Your task to perform on an android device: turn on translation in the chrome app Image 0: 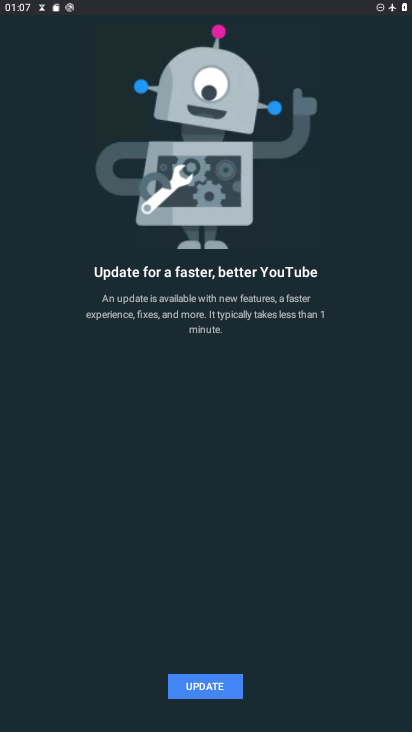
Step 0: press home button
Your task to perform on an android device: turn on translation in the chrome app Image 1: 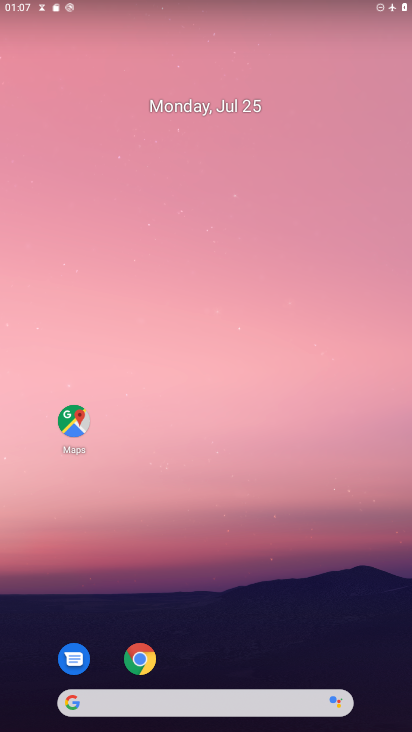
Step 1: drag from (201, 662) to (180, 180)
Your task to perform on an android device: turn on translation in the chrome app Image 2: 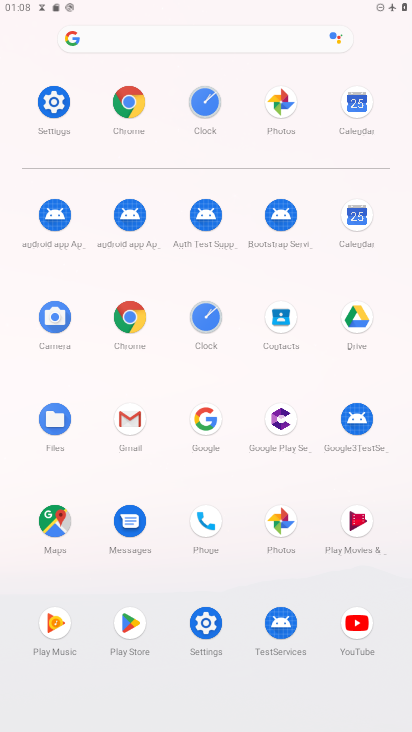
Step 2: click (135, 108)
Your task to perform on an android device: turn on translation in the chrome app Image 3: 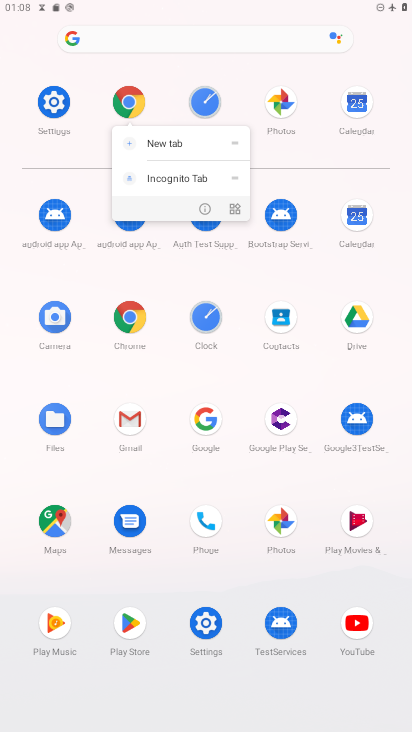
Step 3: click (124, 96)
Your task to perform on an android device: turn on translation in the chrome app Image 4: 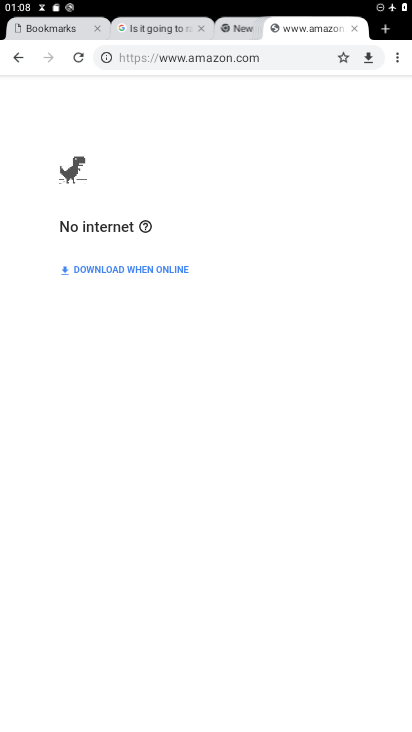
Step 4: click (402, 58)
Your task to perform on an android device: turn on translation in the chrome app Image 5: 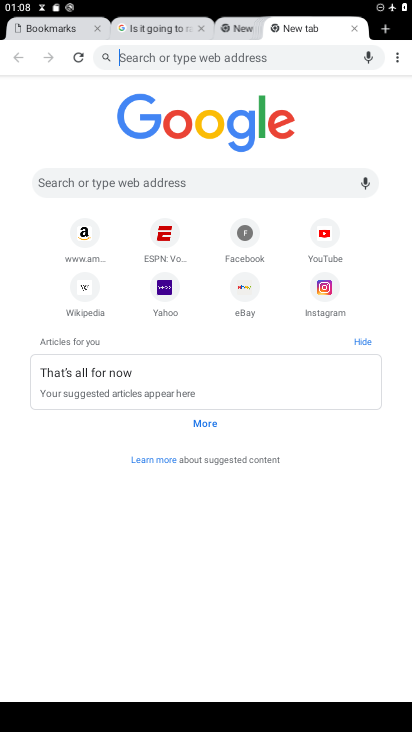
Step 5: click (402, 58)
Your task to perform on an android device: turn on translation in the chrome app Image 6: 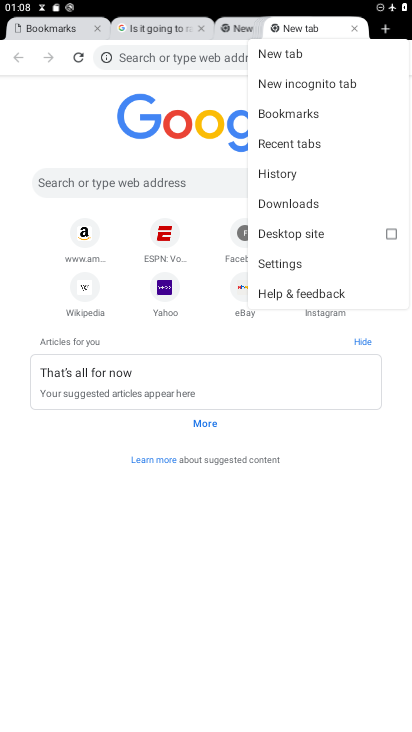
Step 6: click (305, 264)
Your task to perform on an android device: turn on translation in the chrome app Image 7: 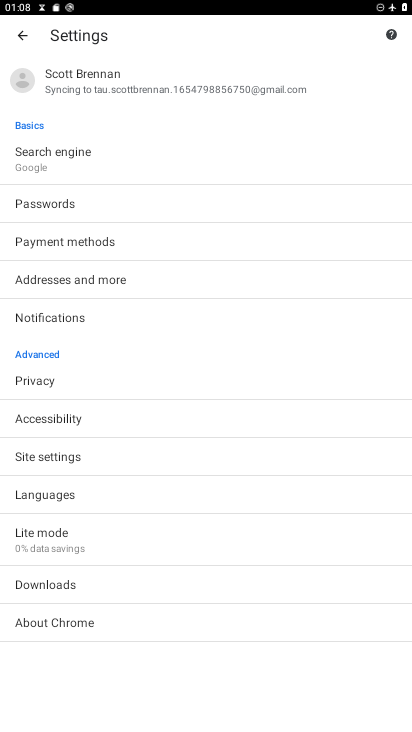
Step 7: click (77, 497)
Your task to perform on an android device: turn on translation in the chrome app Image 8: 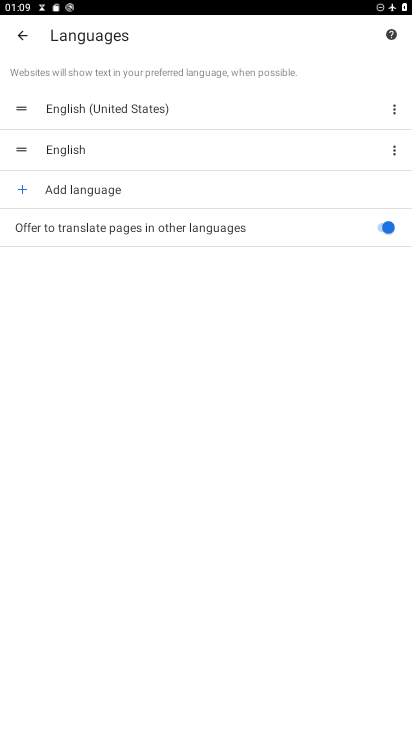
Step 8: task complete